Your task to perform on an android device: Open Youtube and go to the subscriptions tab Image 0: 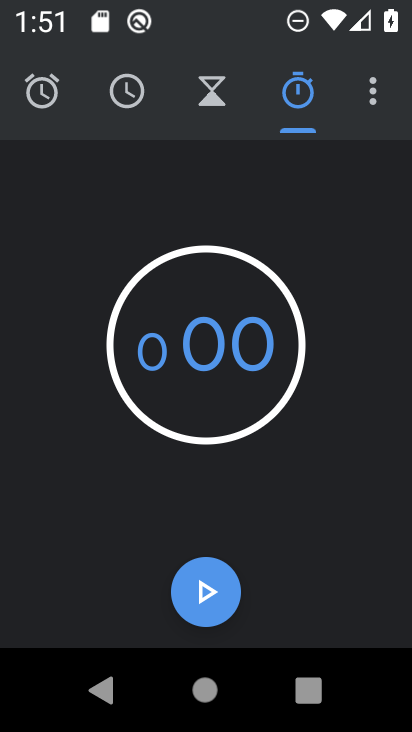
Step 0: press home button
Your task to perform on an android device: Open Youtube and go to the subscriptions tab Image 1: 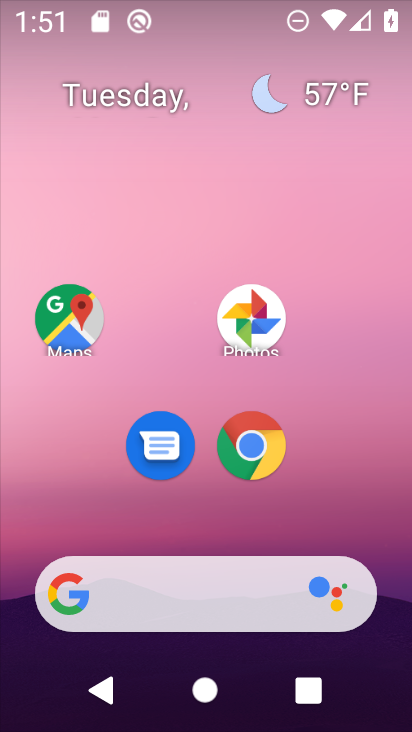
Step 1: drag from (345, 520) to (336, 91)
Your task to perform on an android device: Open Youtube and go to the subscriptions tab Image 2: 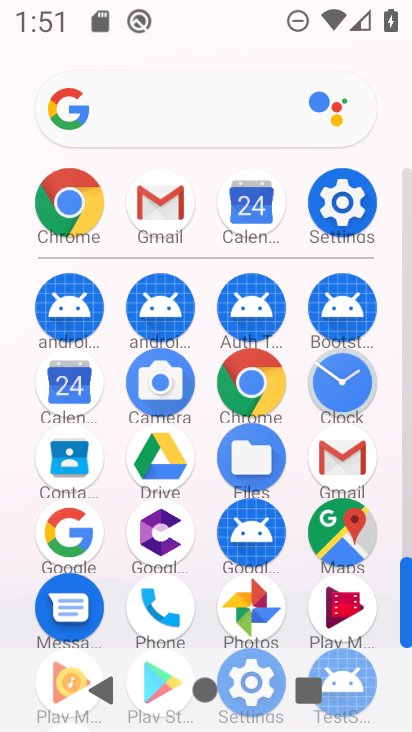
Step 2: drag from (291, 396) to (246, 169)
Your task to perform on an android device: Open Youtube and go to the subscriptions tab Image 3: 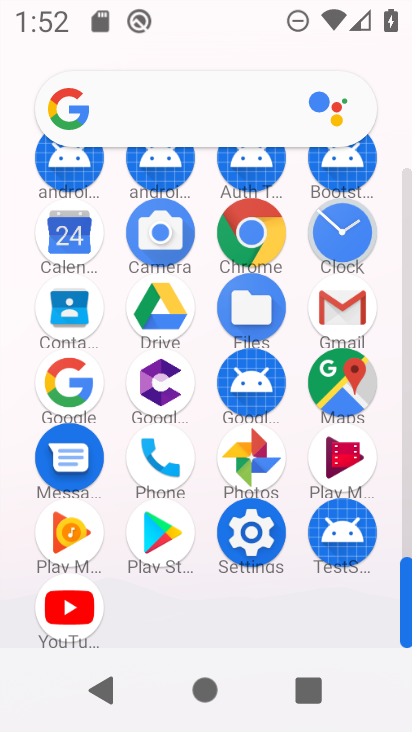
Step 3: click (69, 614)
Your task to perform on an android device: Open Youtube and go to the subscriptions tab Image 4: 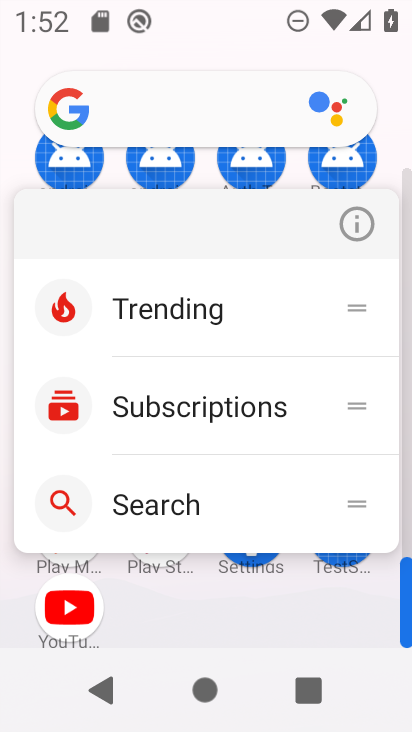
Step 4: click (69, 614)
Your task to perform on an android device: Open Youtube and go to the subscriptions tab Image 5: 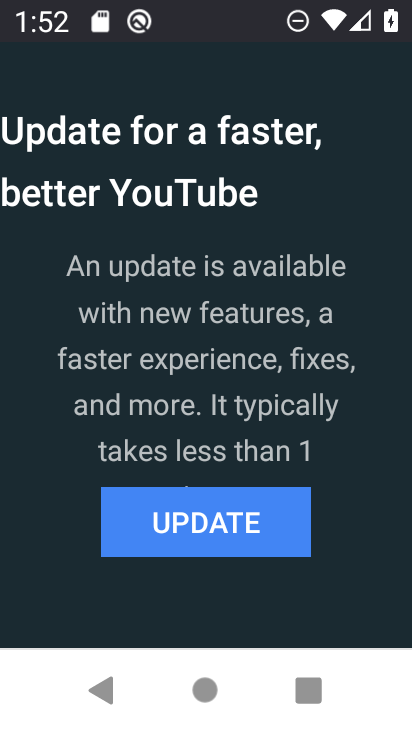
Step 5: click (268, 517)
Your task to perform on an android device: Open Youtube and go to the subscriptions tab Image 6: 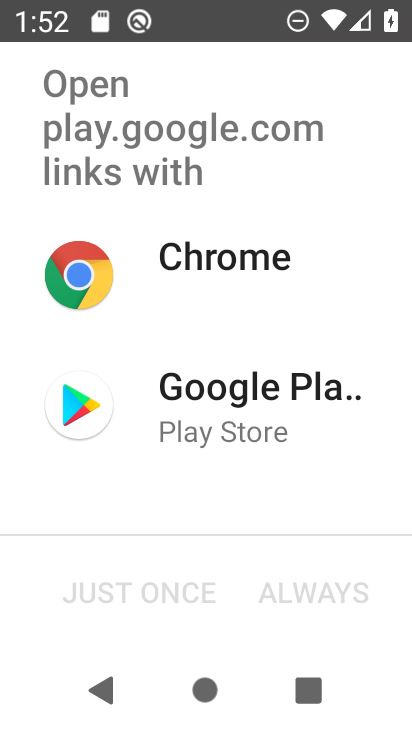
Step 6: click (202, 430)
Your task to perform on an android device: Open Youtube and go to the subscriptions tab Image 7: 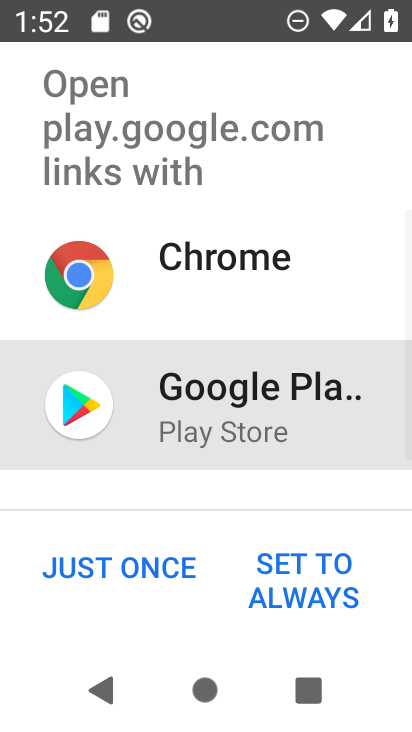
Step 7: click (142, 573)
Your task to perform on an android device: Open Youtube and go to the subscriptions tab Image 8: 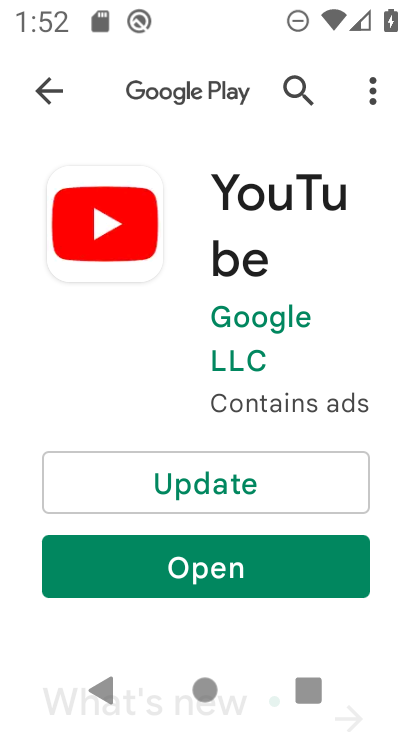
Step 8: click (279, 488)
Your task to perform on an android device: Open Youtube and go to the subscriptions tab Image 9: 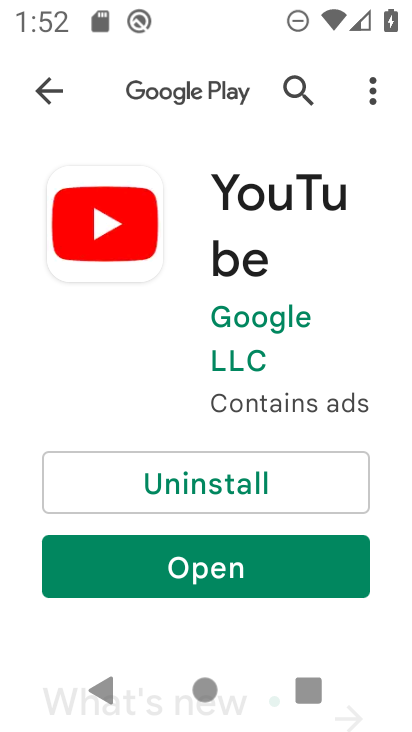
Step 9: click (247, 582)
Your task to perform on an android device: Open Youtube and go to the subscriptions tab Image 10: 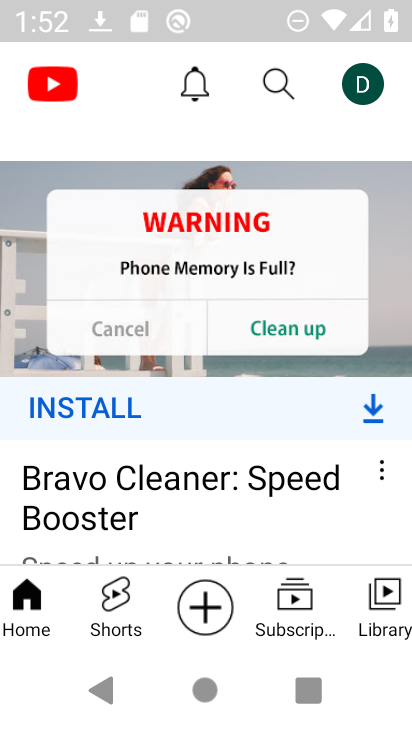
Step 10: click (297, 615)
Your task to perform on an android device: Open Youtube and go to the subscriptions tab Image 11: 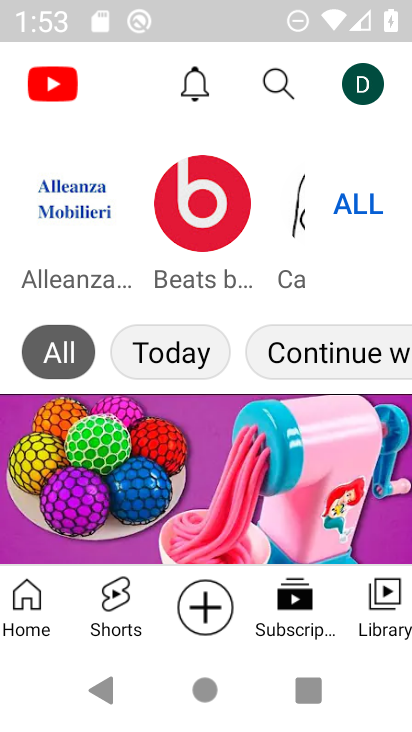
Step 11: task complete